Your task to perform on an android device: Open Amazon Image 0: 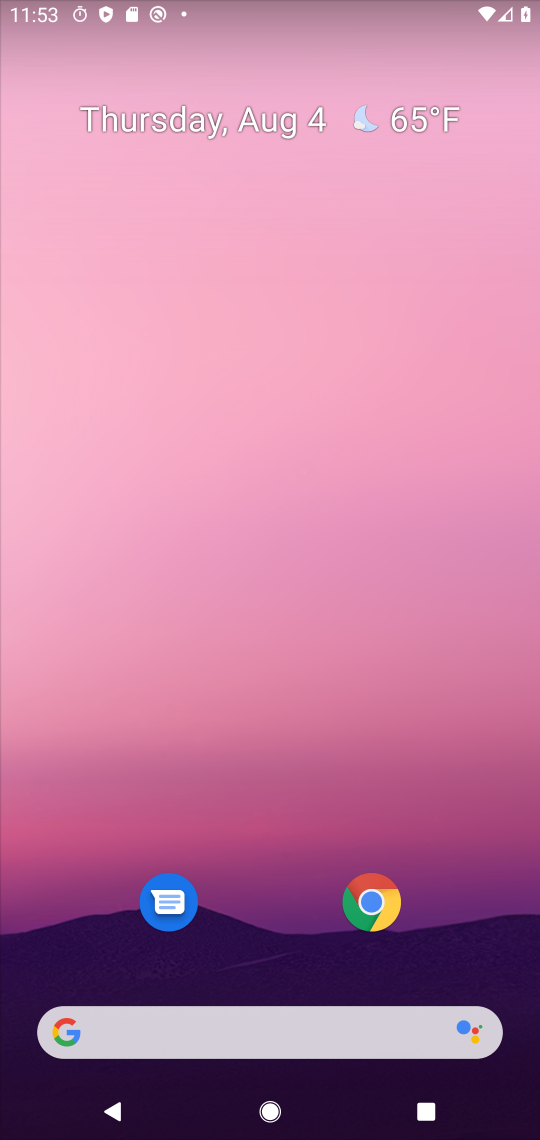
Step 0: press home button
Your task to perform on an android device: Open Amazon Image 1: 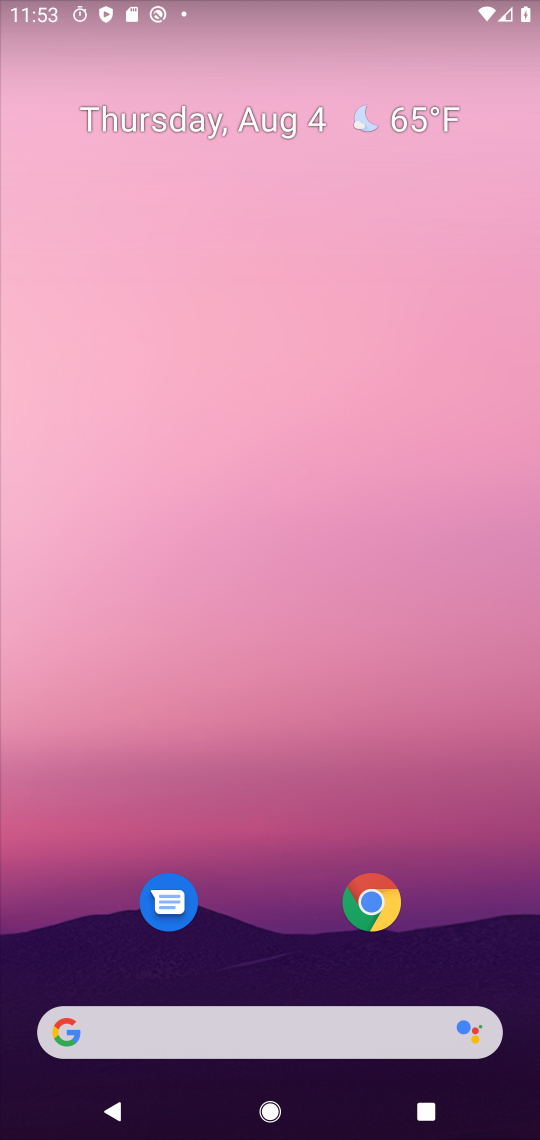
Step 1: drag from (339, 1057) to (415, 201)
Your task to perform on an android device: Open Amazon Image 2: 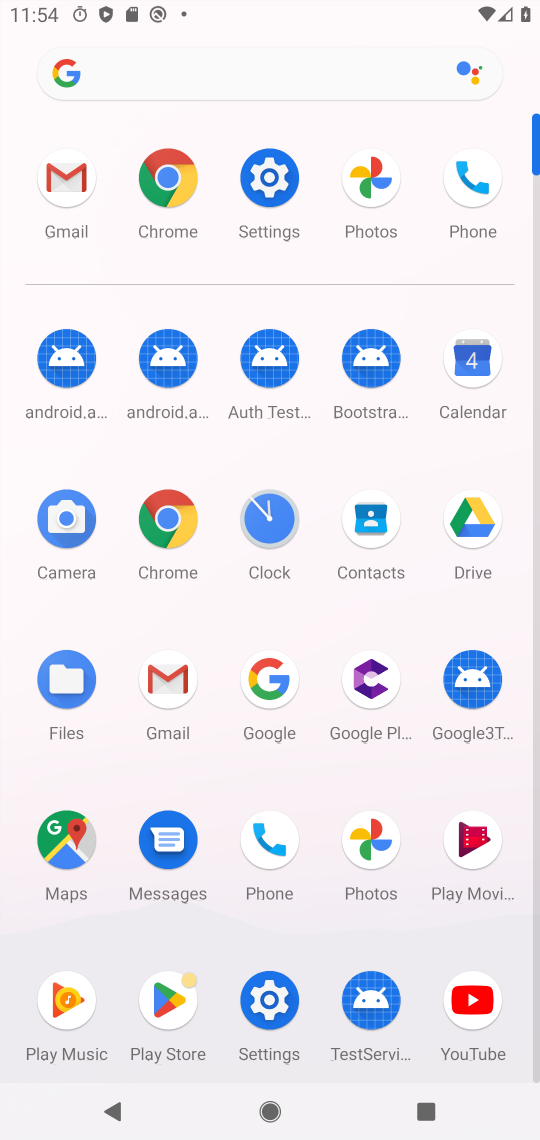
Step 2: click (162, 182)
Your task to perform on an android device: Open Amazon Image 3: 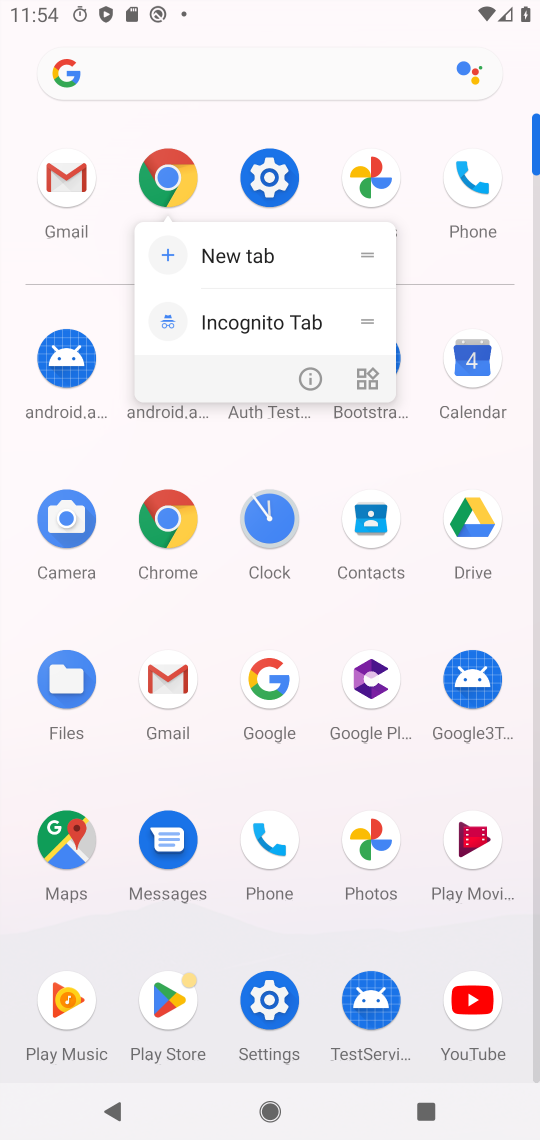
Step 3: click (162, 184)
Your task to perform on an android device: Open Amazon Image 4: 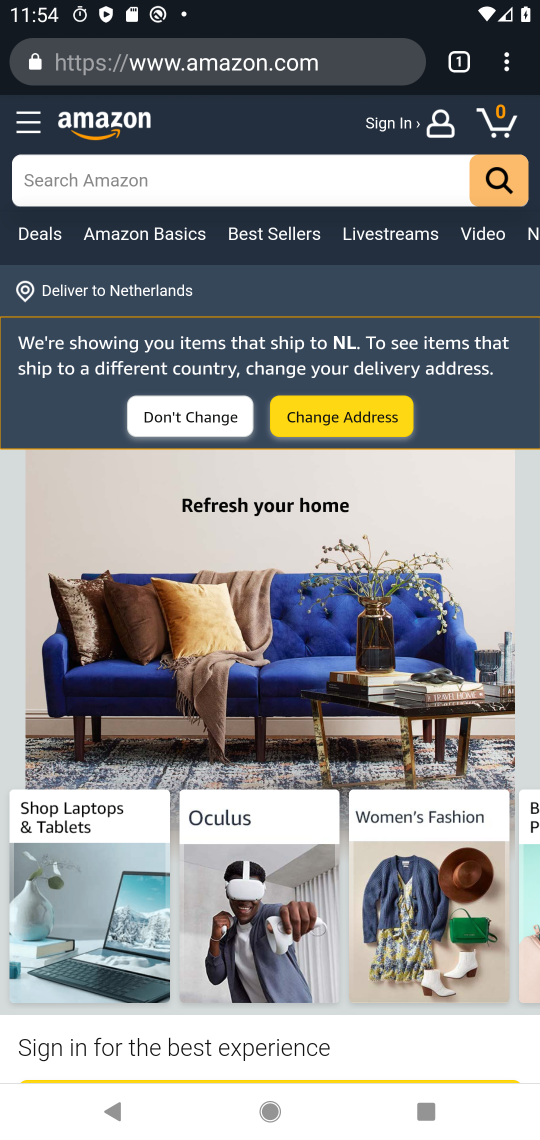
Step 4: click (255, 70)
Your task to perform on an android device: Open Amazon Image 5: 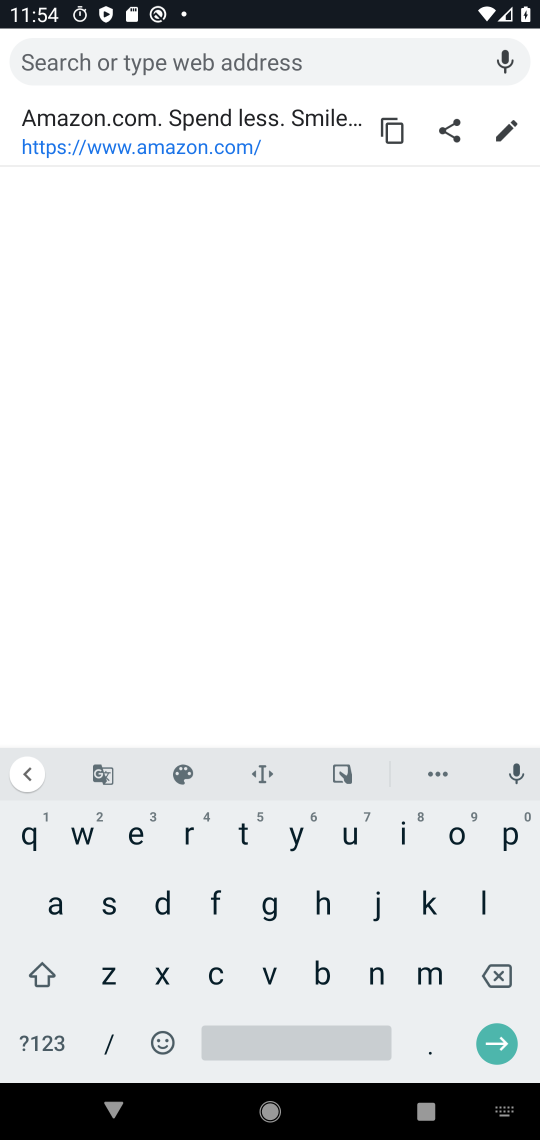
Step 5: click (223, 123)
Your task to perform on an android device: Open Amazon Image 6: 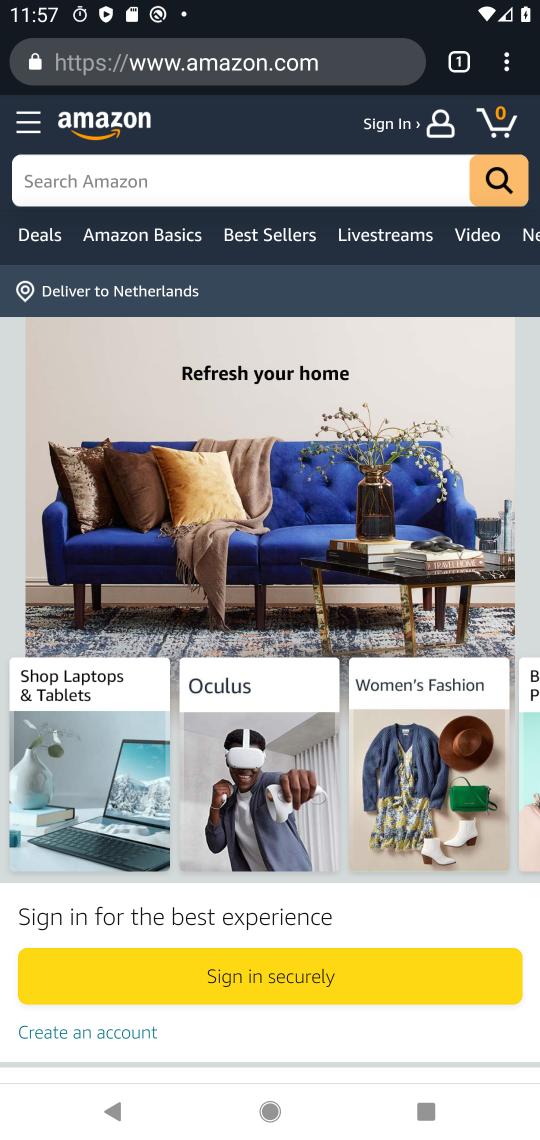
Step 6: task complete